Your task to perform on an android device: Open the stopwatch Image 0: 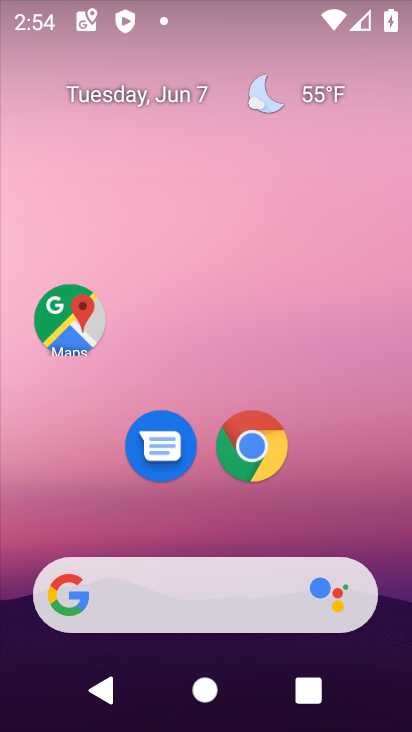
Step 0: drag from (195, 548) to (213, 231)
Your task to perform on an android device: Open the stopwatch Image 1: 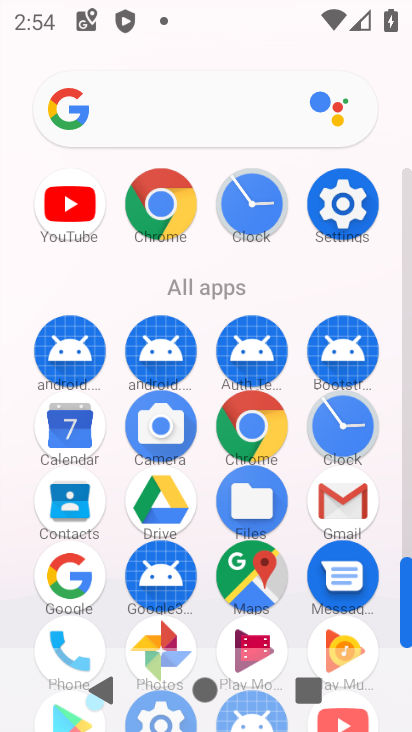
Step 1: click (258, 197)
Your task to perform on an android device: Open the stopwatch Image 2: 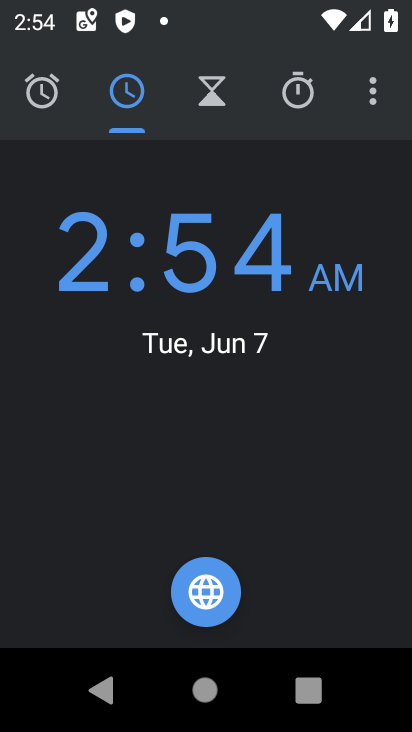
Step 2: click (296, 101)
Your task to perform on an android device: Open the stopwatch Image 3: 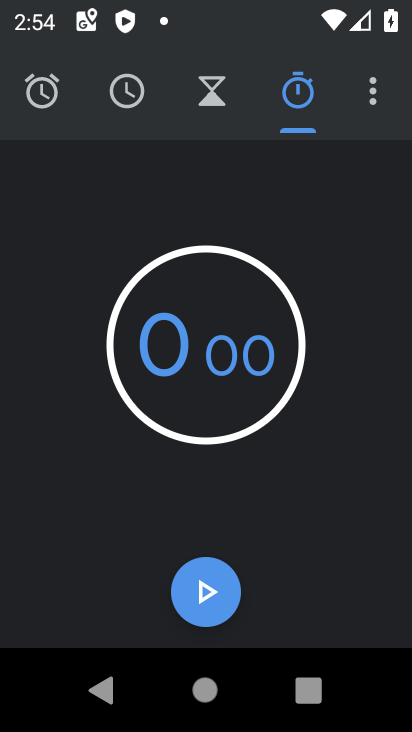
Step 3: click (201, 590)
Your task to perform on an android device: Open the stopwatch Image 4: 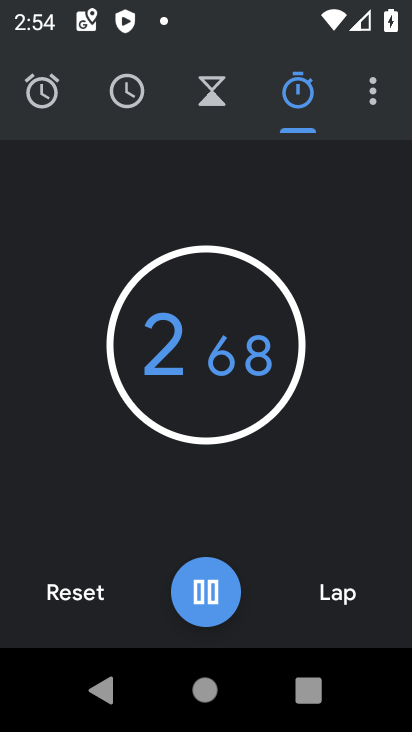
Step 4: task complete